Your task to perform on an android device: Open Android settings Image 0: 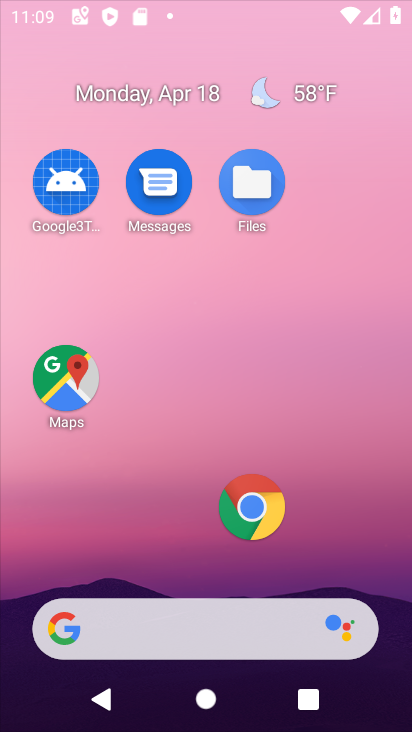
Step 0: drag from (194, 50) to (379, 54)
Your task to perform on an android device: Open Android settings Image 1: 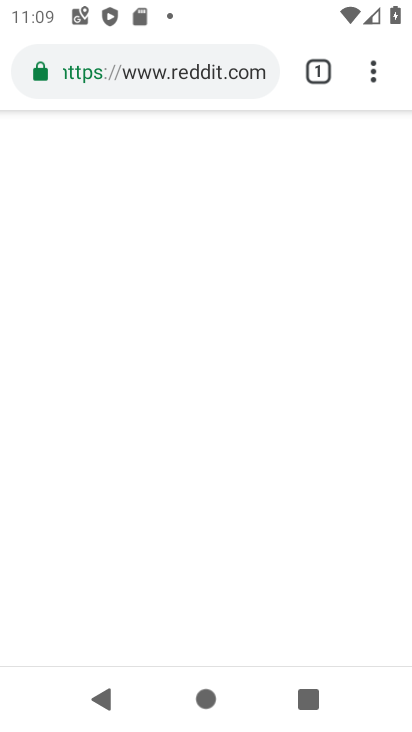
Step 1: press home button
Your task to perform on an android device: Open Android settings Image 2: 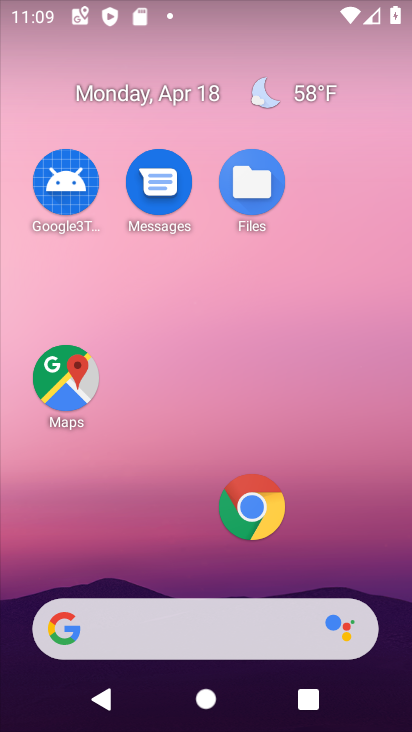
Step 2: drag from (211, 582) to (171, 32)
Your task to perform on an android device: Open Android settings Image 3: 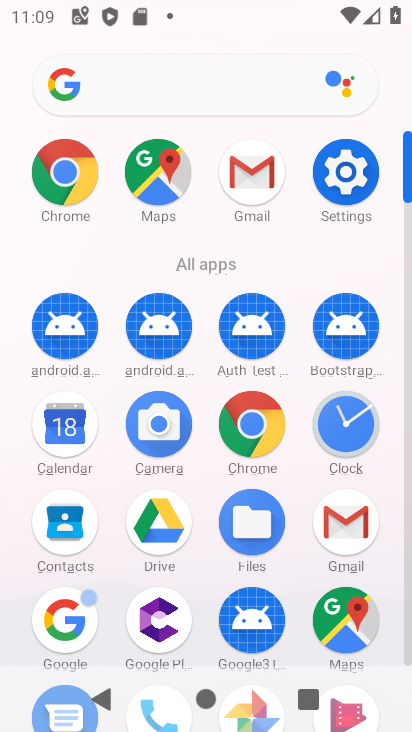
Step 3: click (328, 163)
Your task to perform on an android device: Open Android settings Image 4: 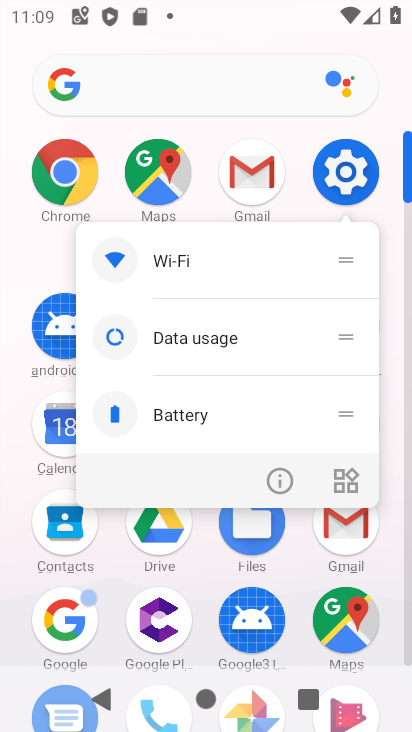
Step 4: click (332, 168)
Your task to perform on an android device: Open Android settings Image 5: 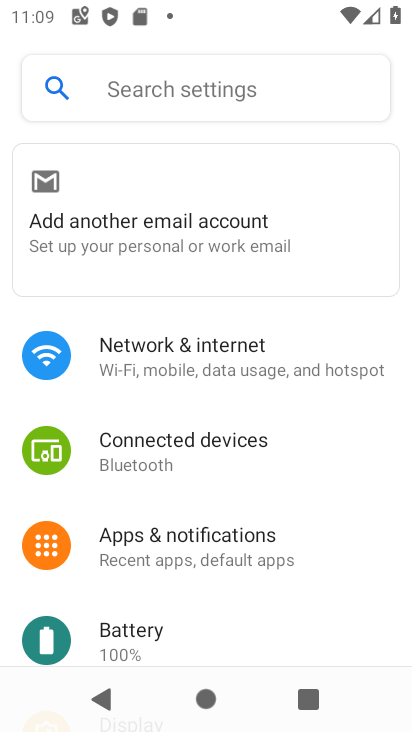
Step 5: task complete